Your task to perform on an android device: manage bookmarks in the chrome app Image 0: 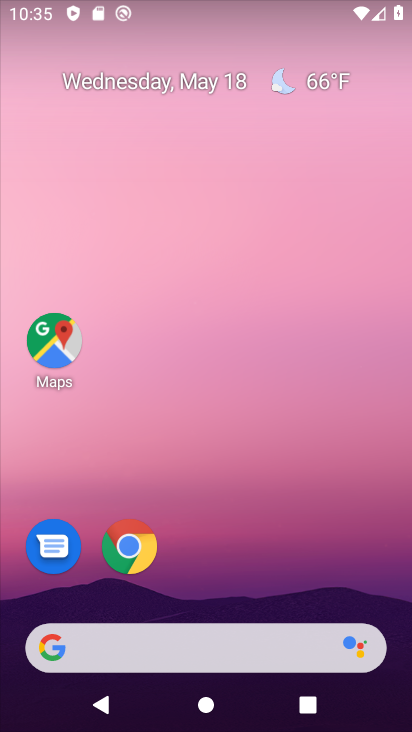
Step 0: click (129, 553)
Your task to perform on an android device: manage bookmarks in the chrome app Image 1: 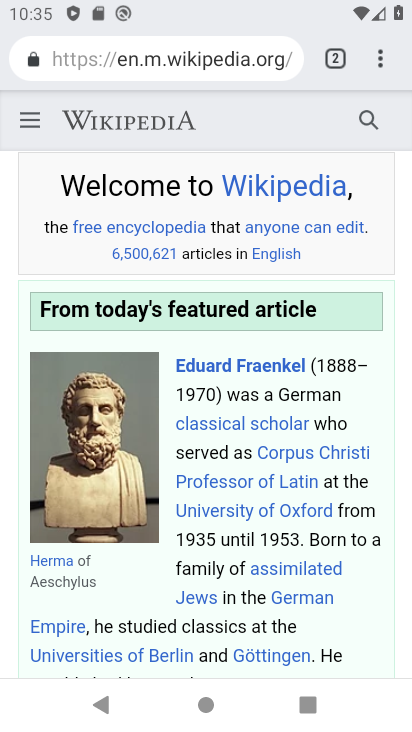
Step 1: click (380, 69)
Your task to perform on an android device: manage bookmarks in the chrome app Image 2: 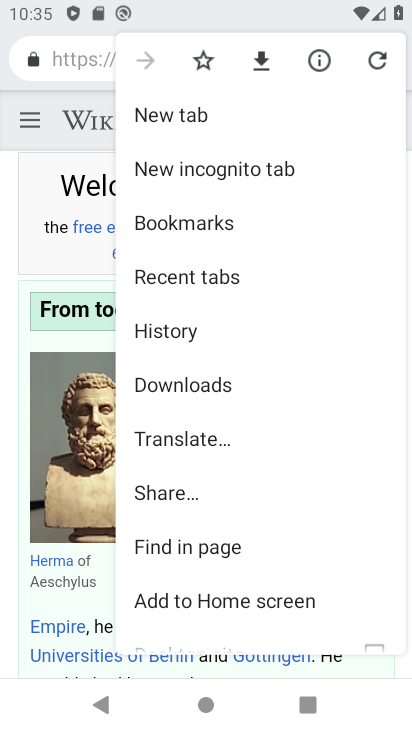
Step 2: click (182, 214)
Your task to perform on an android device: manage bookmarks in the chrome app Image 3: 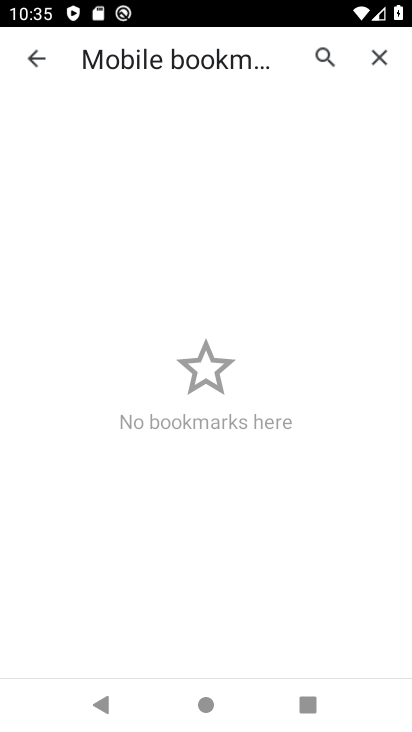
Step 3: task complete